Your task to perform on an android device: Search for Mexican restaurants on Maps Image 0: 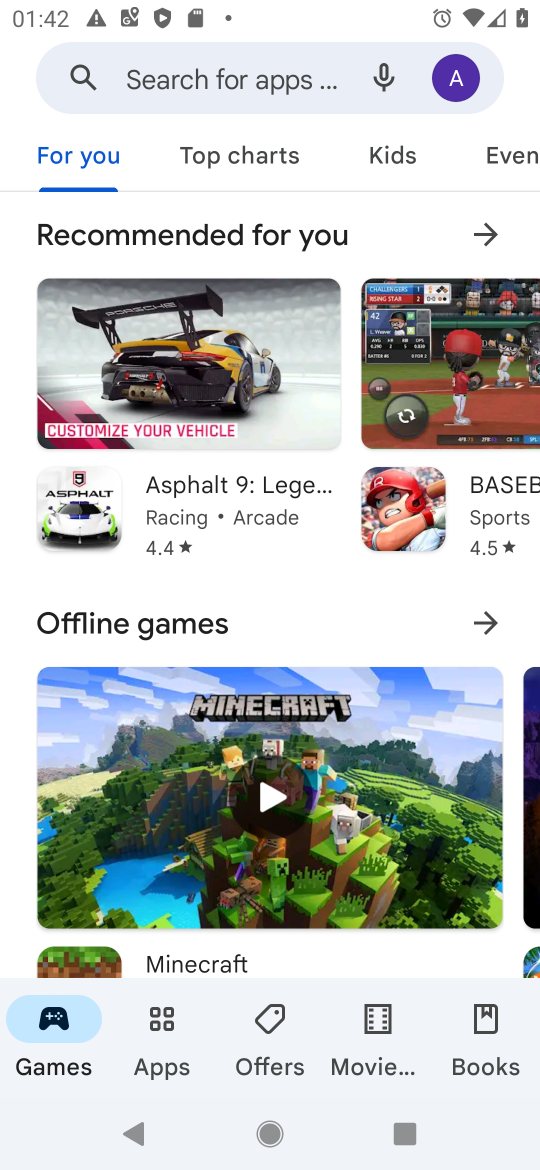
Step 0: press home button
Your task to perform on an android device: Search for Mexican restaurants on Maps Image 1: 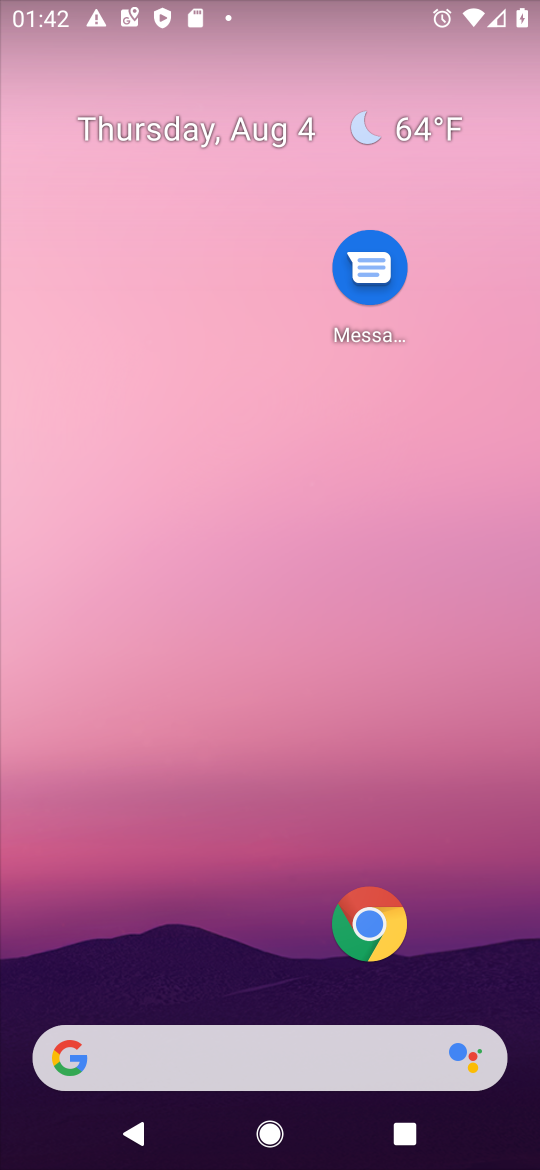
Step 1: drag from (47, 1074) to (514, 1167)
Your task to perform on an android device: Search for Mexican restaurants on Maps Image 2: 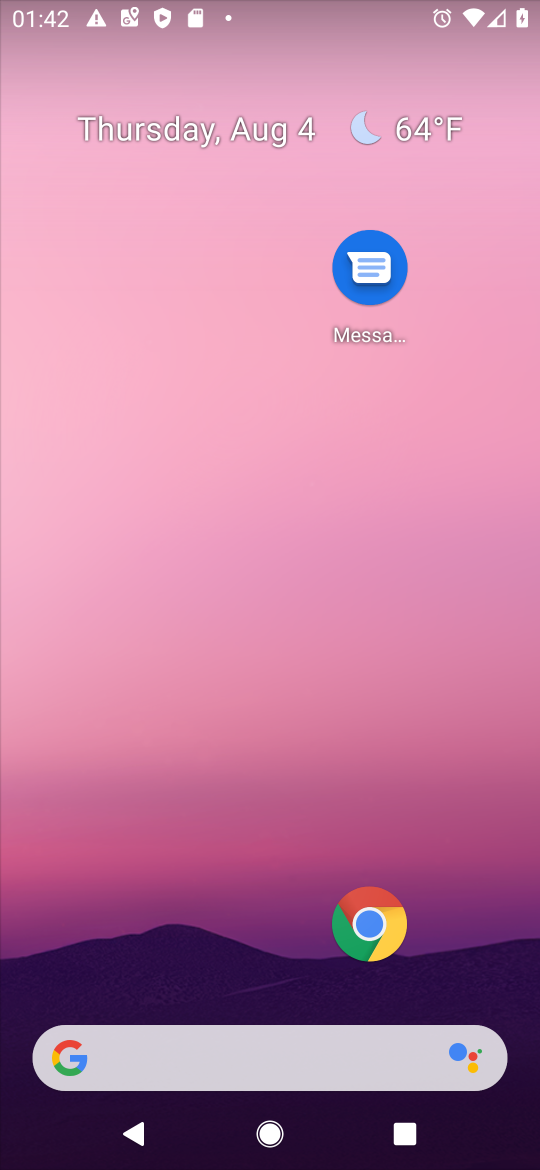
Step 2: drag from (90, 954) to (202, 167)
Your task to perform on an android device: Search for Mexican restaurants on Maps Image 3: 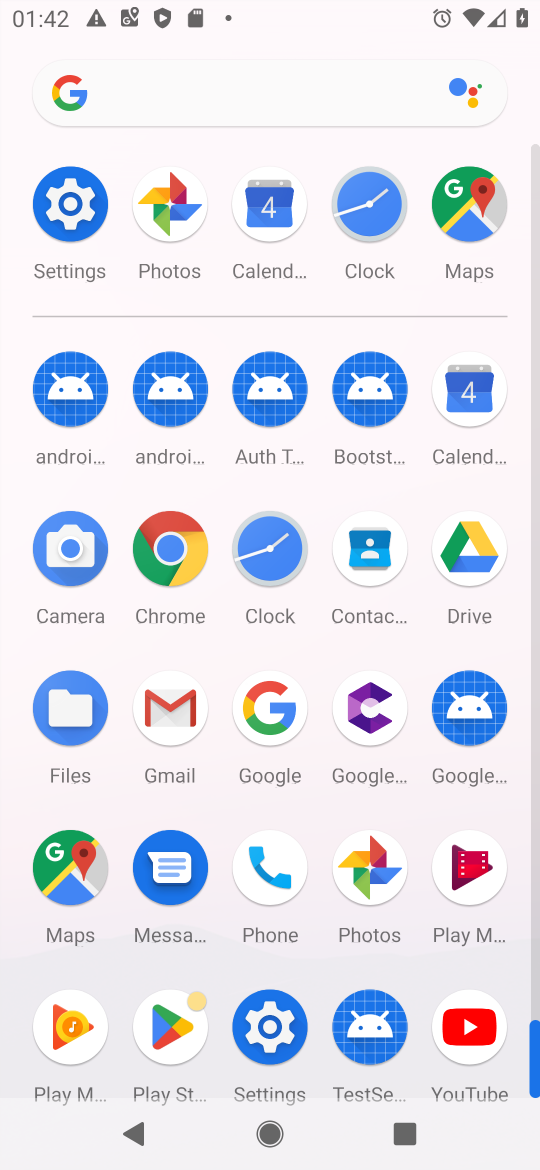
Step 3: click (75, 880)
Your task to perform on an android device: Search for Mexican restaurants on Maps Image 4: 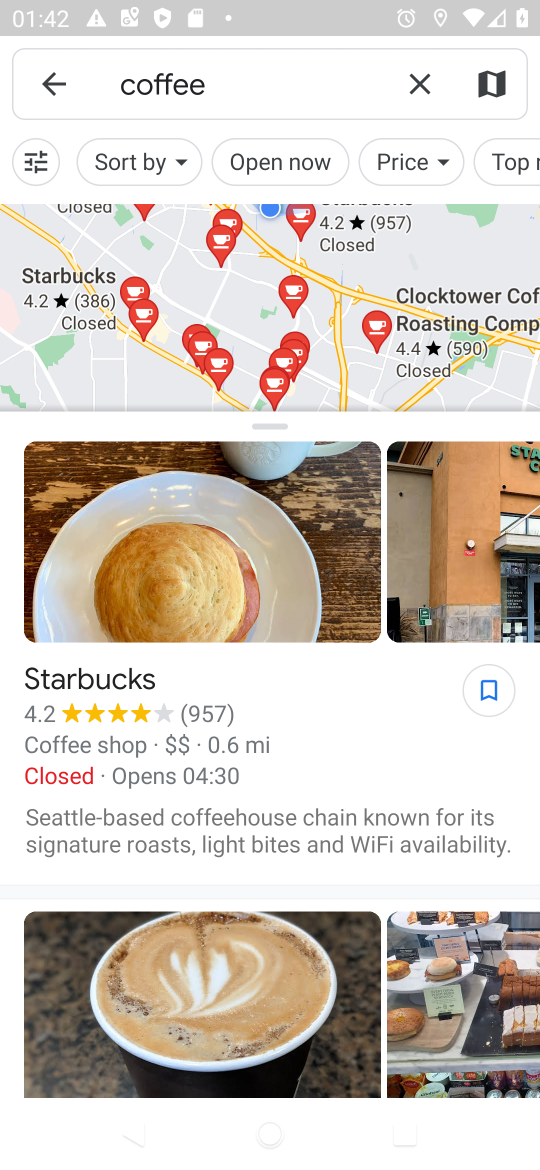
Step 4: click (60, 84)
Your task to perform on an android device: Search for Mexican restaurants on Maps Image 5: 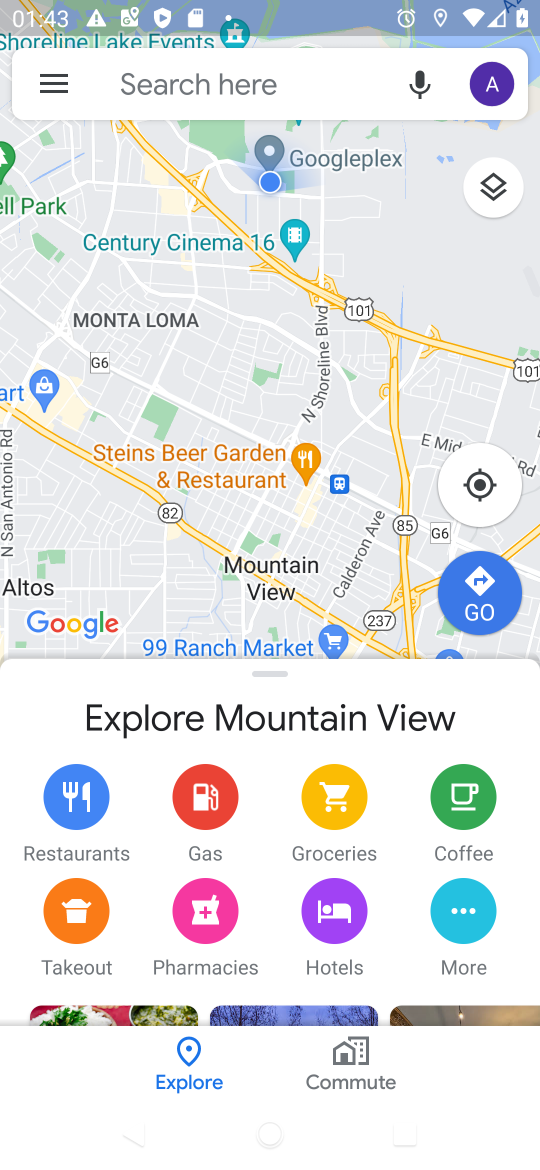
Step 5: click (142, 75)
Your task to perform on an android device: Search for Mexican restaurants on Maps Image 6: 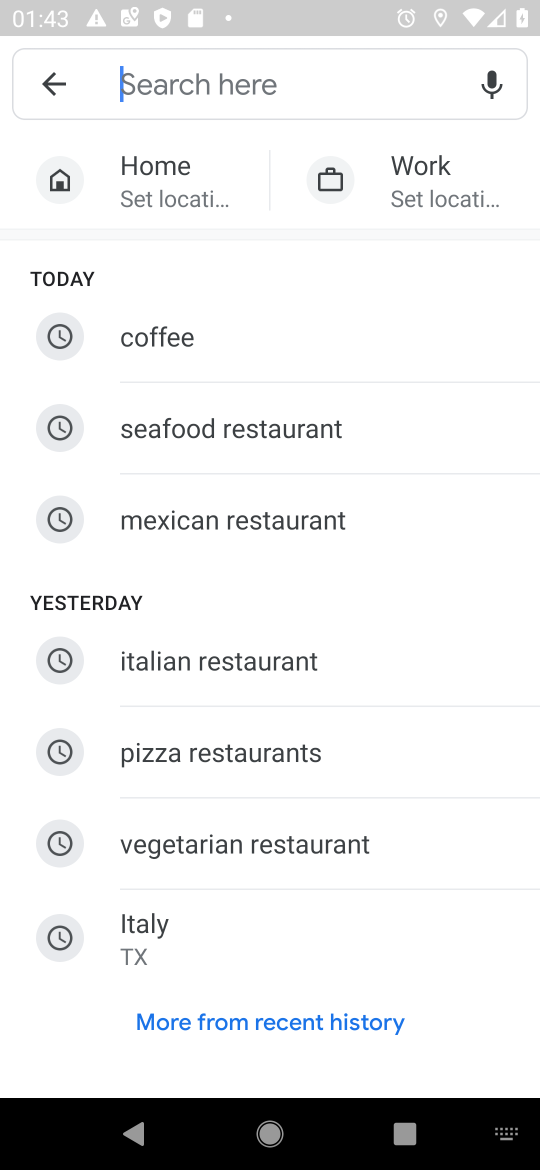
Step 6: click (290, 505)
Your task to perform on an android device: Search for Mexican restaurants on Maps Image 7: 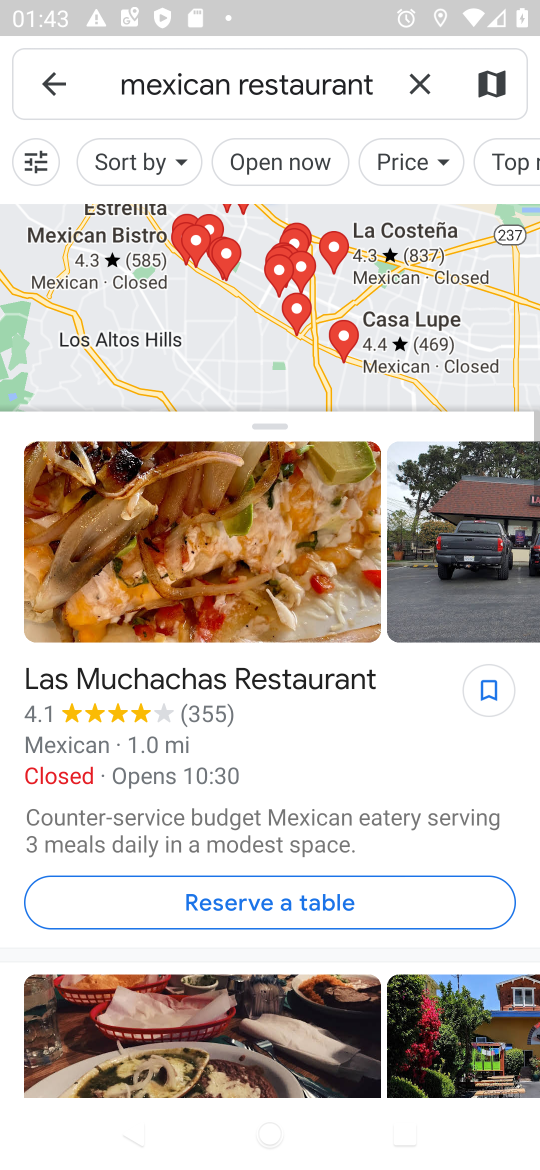
Step 7: task complete